Your task to perform on an android device: change the upload size in google photos Image 0: 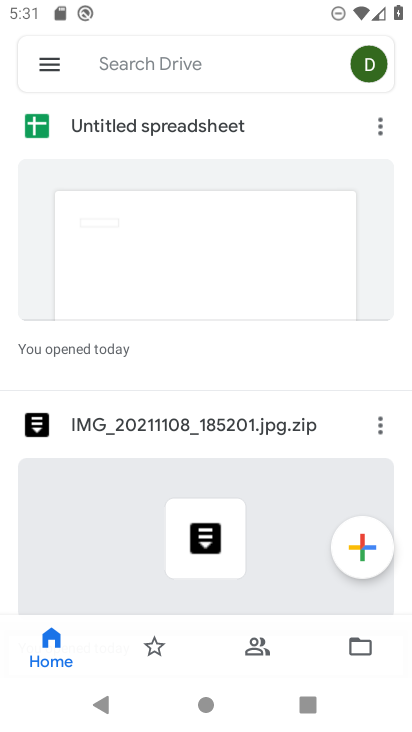
Step 0: press home button
Your task to perform on an android device: change the upload size in google photos Image 1: 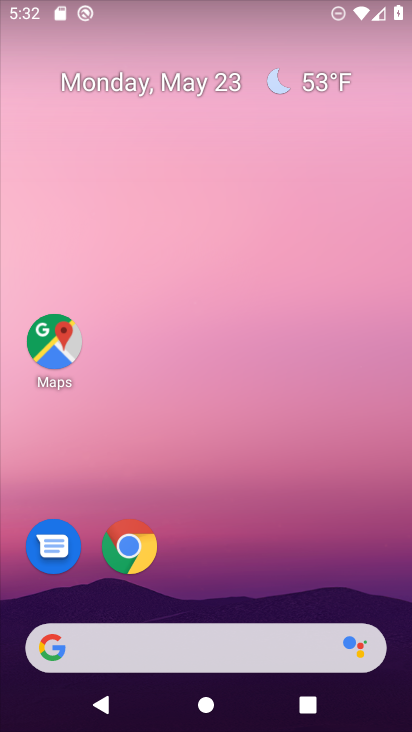
Step 1: drag from (249, 558) to (306, 16)
Your task to perform on an android device: change the upload size in google photos Image 2: 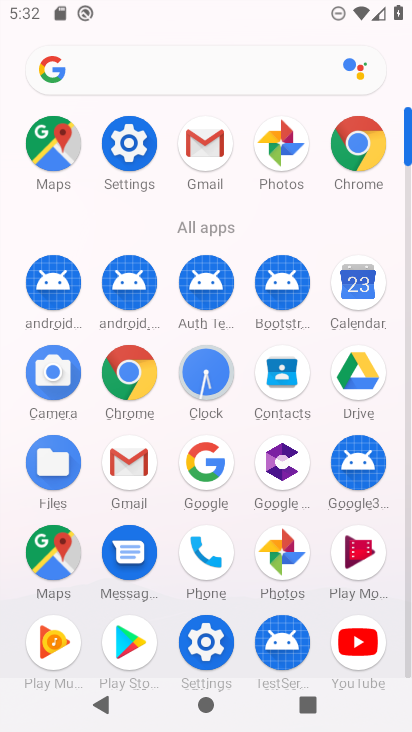
Step 2: click (278, 155)
Your task to perform on an android device: change the upload size in google photos Image 3: 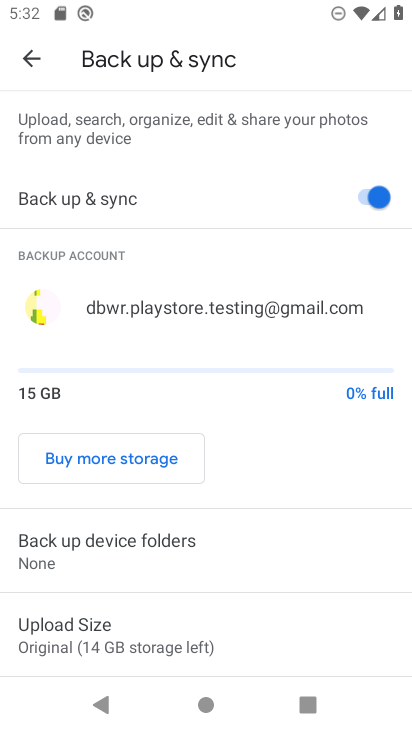
Step 3: click (118, 639)
Your task to perform on an android device: change the upload size in google photos Image 4: 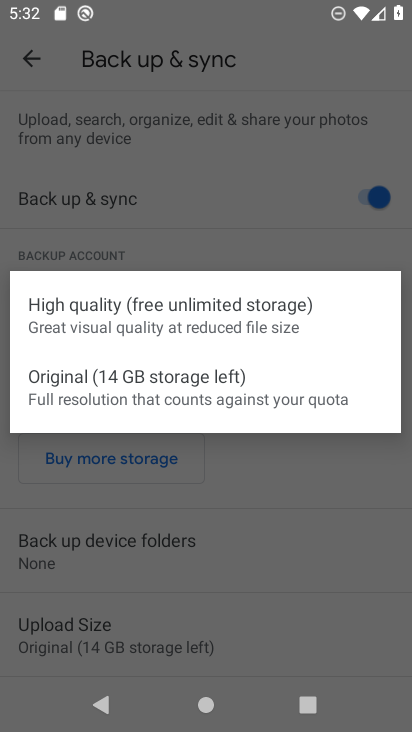
Step 4: click (165, 326)
Your task to perform on an android device: change the upload size in google photos Image 5: 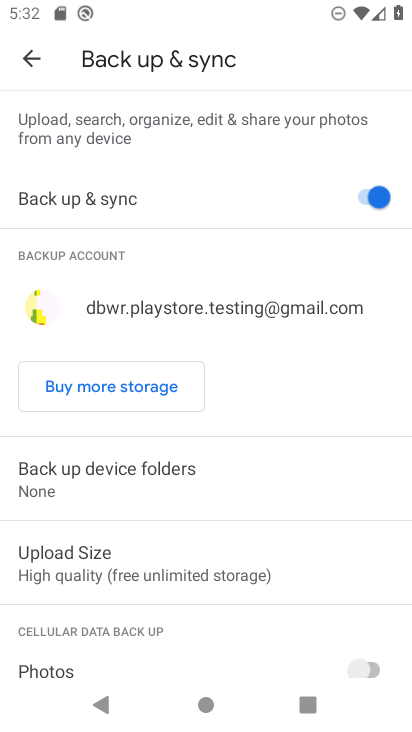
Step 5: task complete